Your task to perform on an android device: Go to display settings Image 0: 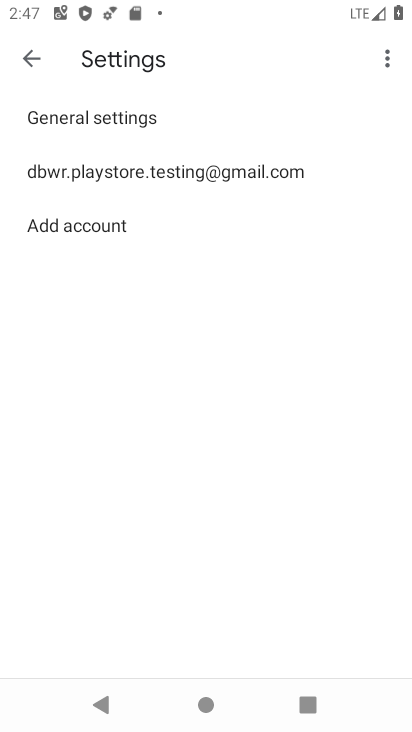
Step 0: press home button
Your task to perform on an android device: Go to display settings Image 1: 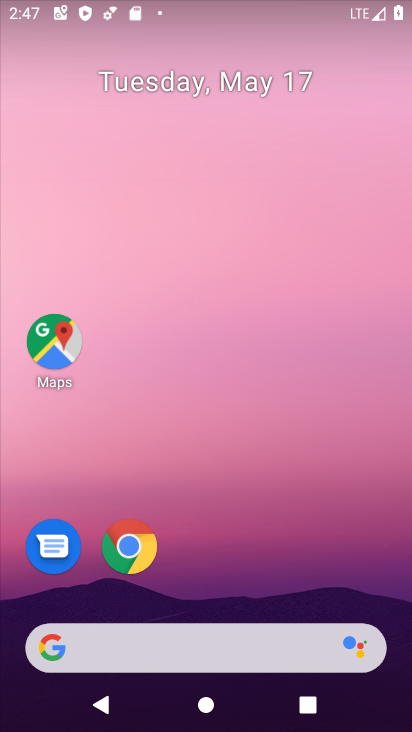
Step 1: drag from (288, 573) to (368, 5)
Your task to perform on an android device: Go to display settings Image 2: 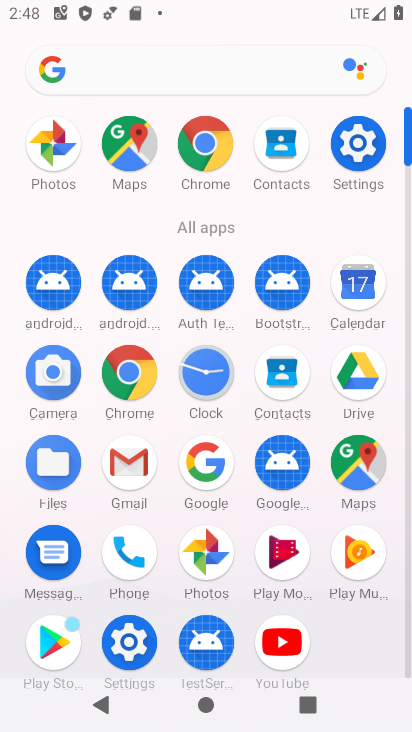
Step 2: click (109, 633)
Your task to perform on an android device: Go to display settings Image 3: 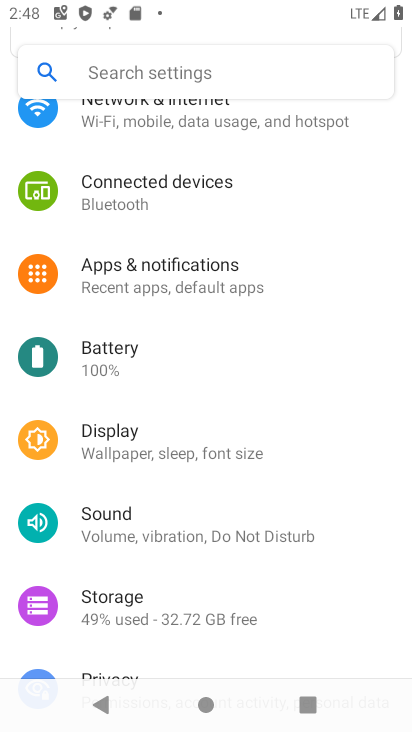
Step 3: click (137, 429)
Your task to perform on an android device: Go to display settings Image 4: 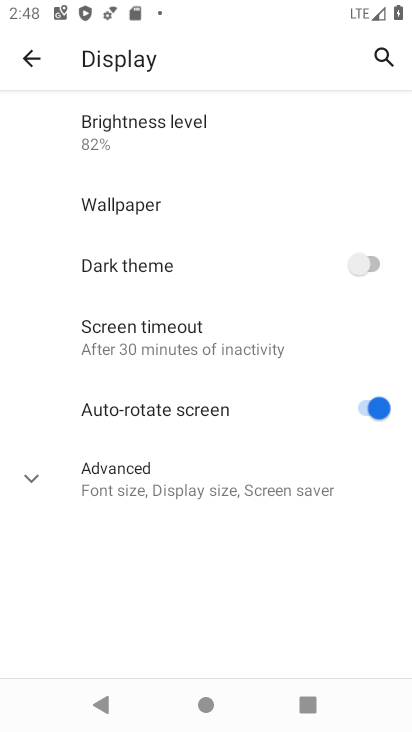
Step 4: task complete